Your task to perform on an android device: turn off picture-in-picture Image 0: 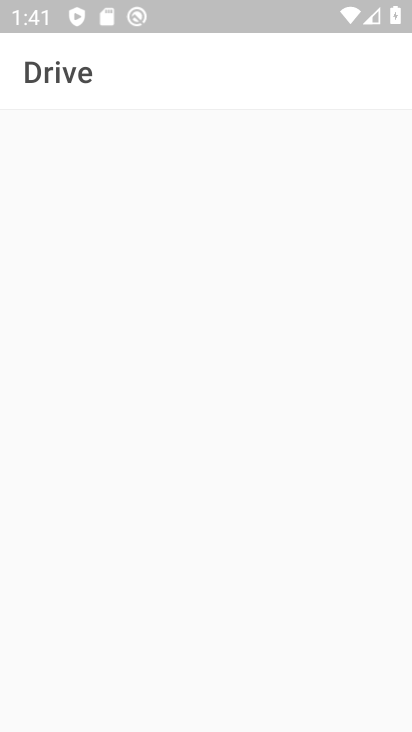
Step 0: press home button
Your task to perform on an android device: turn off picture-in-picture Image 1: 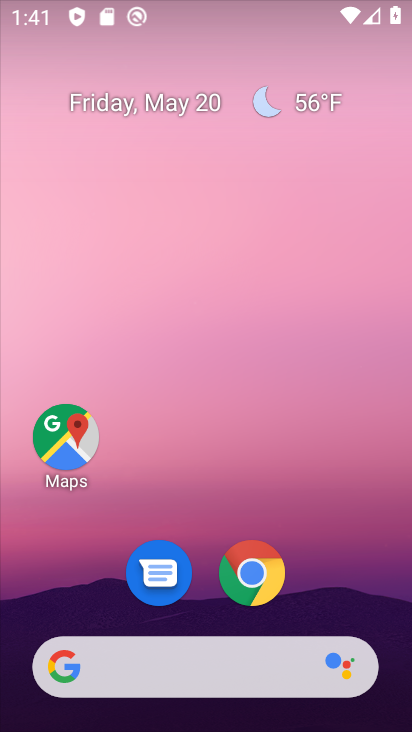
Step 1: drag from (404, 618) to (299, 43)
Your task to perform on an android device: turn off picture-in-picture Image 2: 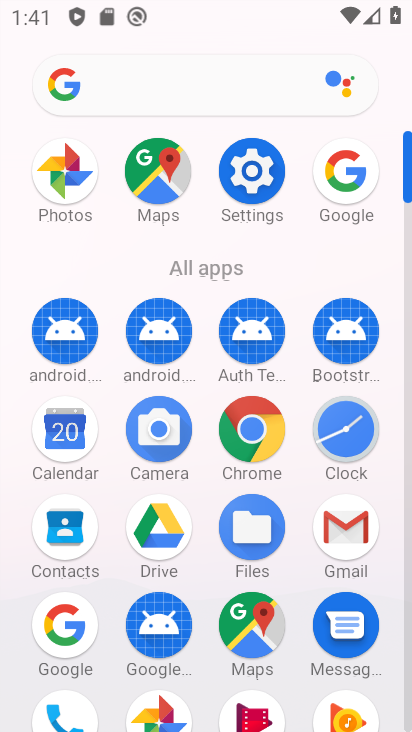
Step 2: click (257, 442)
Your task to perform on an android device: turn off picture-in-picture Image 3: 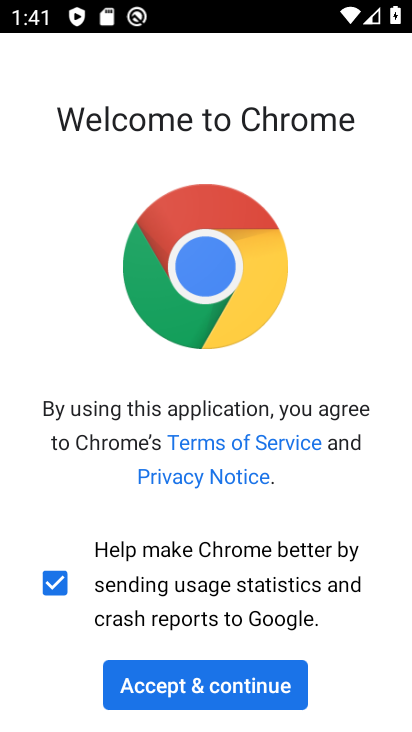
Step 3: click (219, 666)
Your task to perform on an android device: turn off picture-in-picture Image 4: 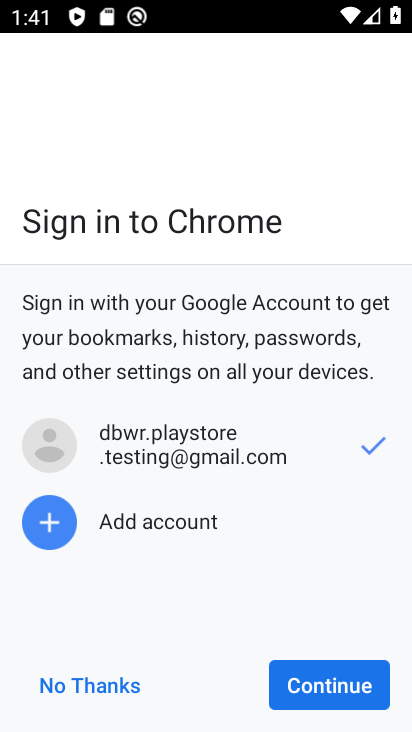
Step 4: click (312, 679)
Your task to perform on an android device: turn off picture-in-picture Image 5: 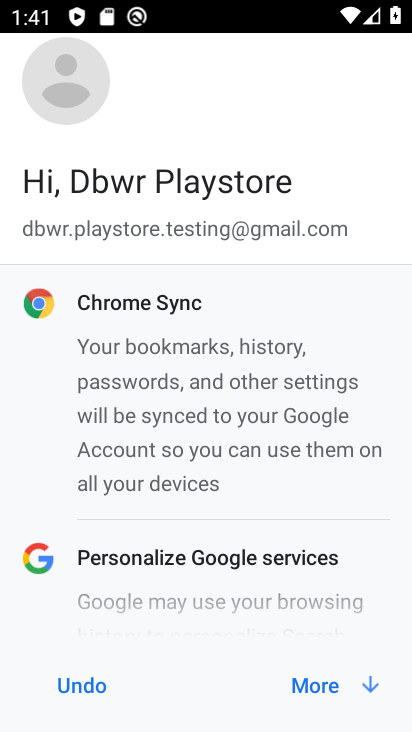
Step 5: click (312, 679)
Your task to perform on an android device: turn off picture-in-picture Image 6: 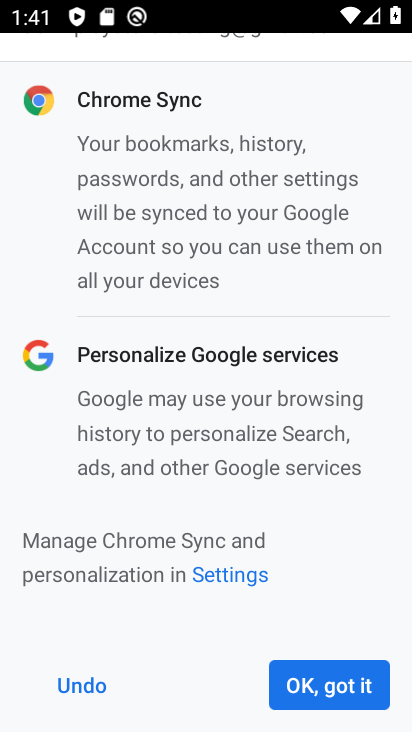
Step 6: click (312, 679)
Your task to perform on an android device: turn off picture-in-picture Image 7: 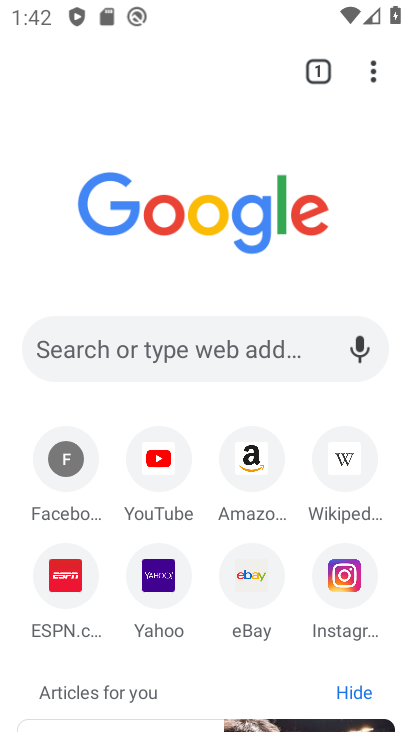
Step 7: task complete